Your task to perform on an android device: delete a single message in the gmail app Image 0: 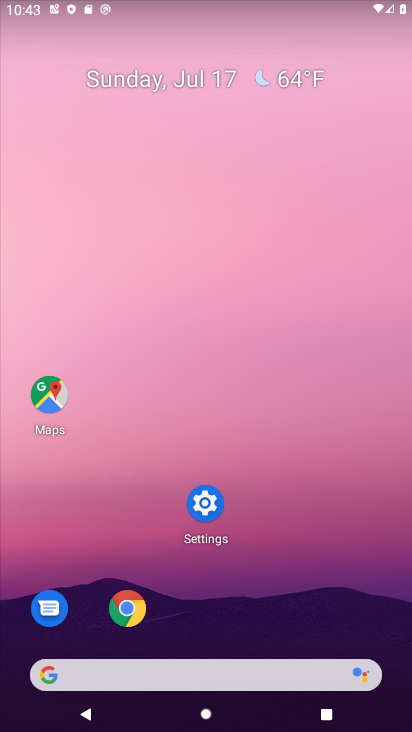
Step 0: drag from (388, 632) to (335, 131)
Your task to perform on an android device: delete a single message in the gmail app Image 1: 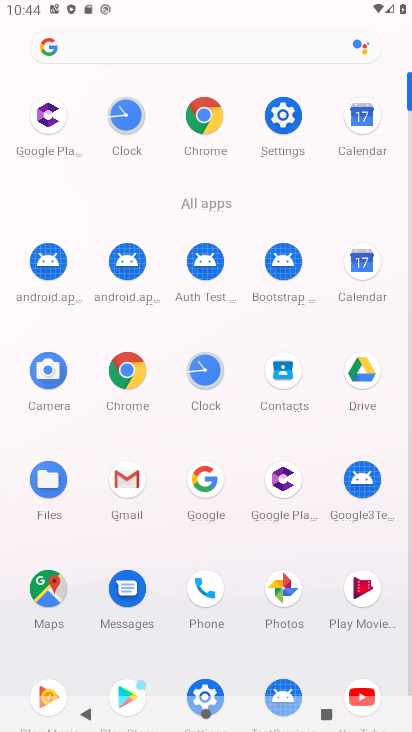
Step 1: click (120, 472)
Your task to perform on an android device: delete a single message in the gmail app Image 2: 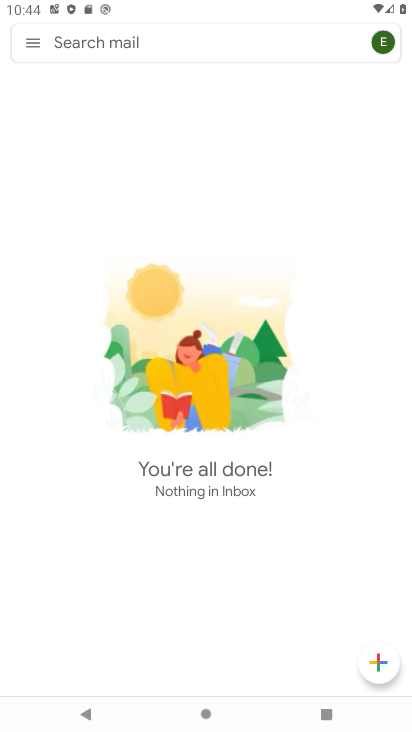
Step 2: task complete